Your task to perform on an android device: Go to calendar. Show me events next week Image 0: 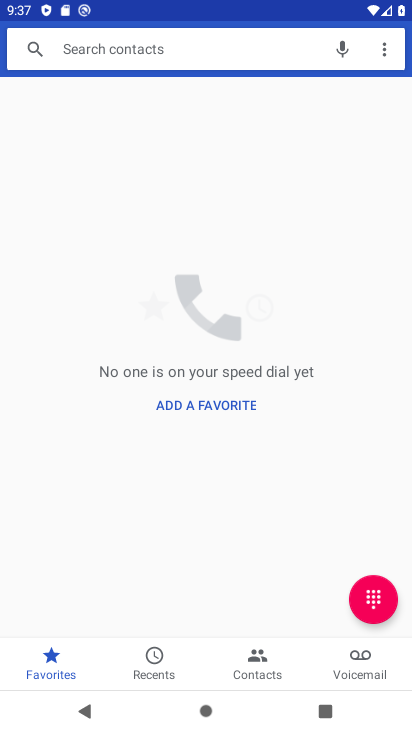
Step 0: click (138, 584)
Your task to perform on an android device: Go to calendar. Show me events next week Image 1: 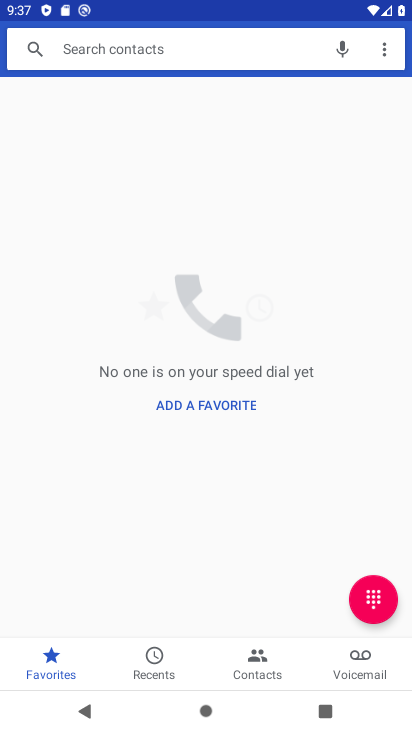
Step 1: press home button
Your task to perform on an android device: Go to calendar. Show me events next week Image 2: 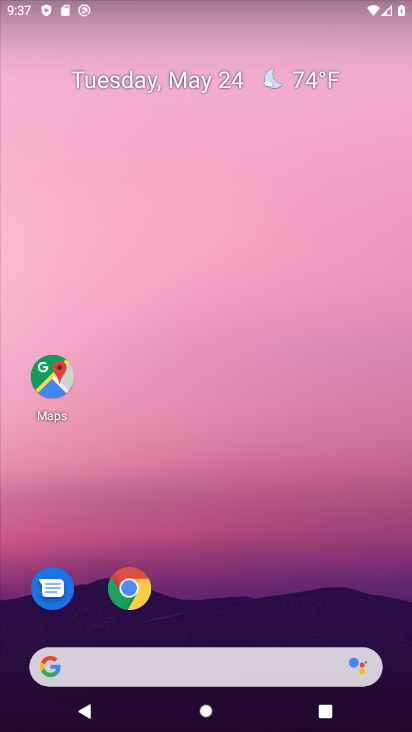
Step 2: click (146, 67)
Your task to perform on an android device: Go to calendar. Show me events next week Image 3: 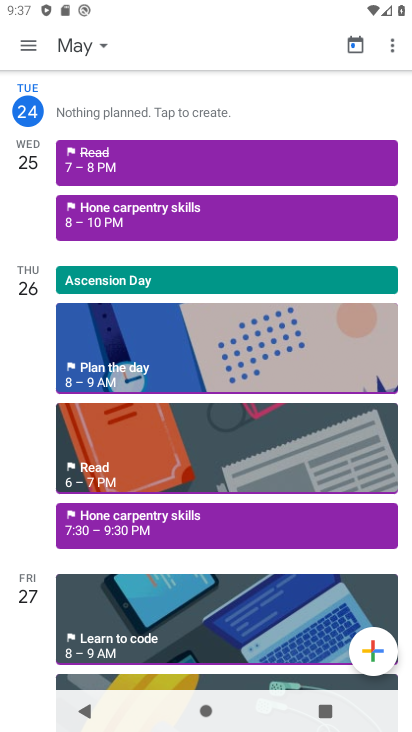
Step 3: click (75, 38)
Your task to perform on an android device: Go to calendar. Show me events next week Image 4: 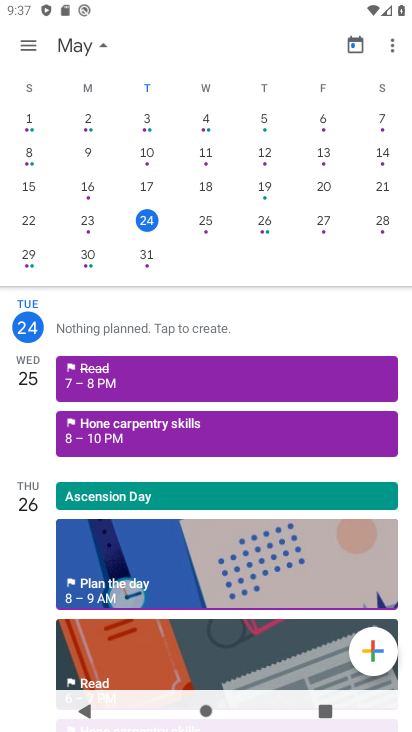
Step 4: drag from (385, 268) to (0, 205)
Your task to perform on an android device: Go to calendar. Show me events next week Image 5: 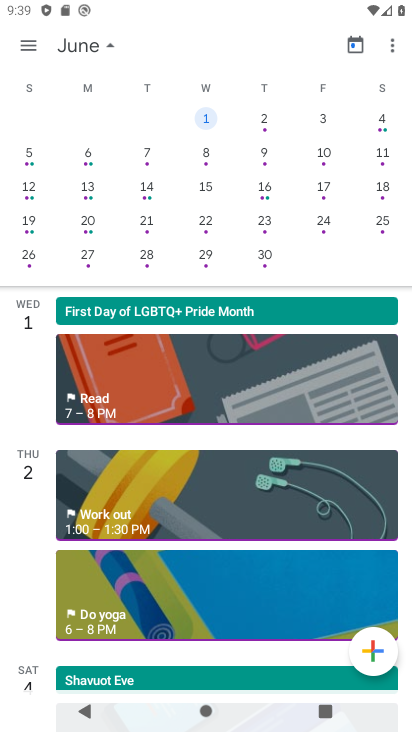
Step 5: drag from (35, 120) to (393, 212)
Your task to perform on an android device: Go to calendar. Show me events next week Image 6: 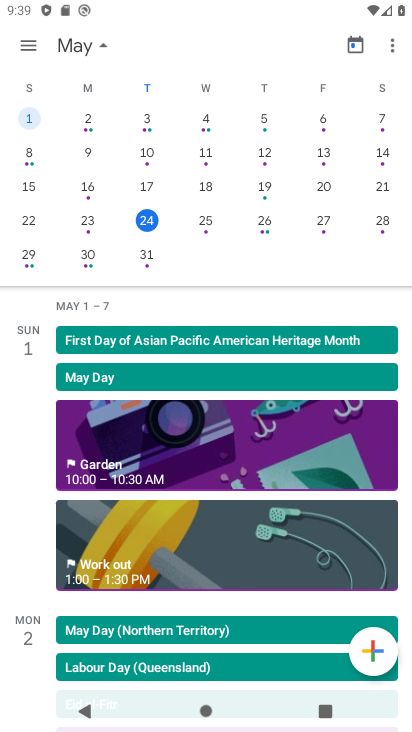
Step 6: drag from (127, 0) to (384, 84)
Your task to perform on an android device: Go to calendar. Show me events next week Image 7: 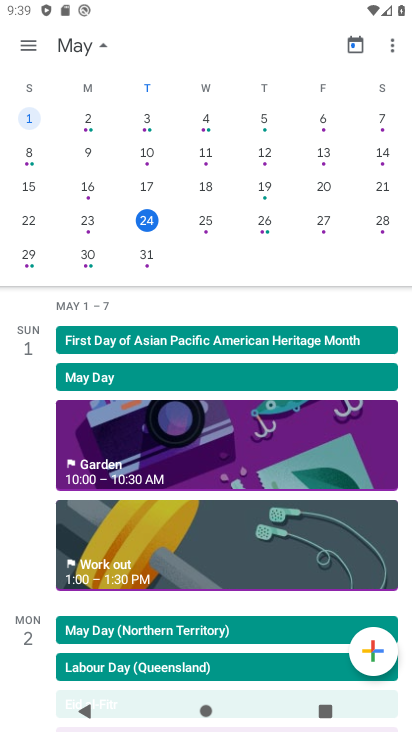
Step 7: drag from (18, 111) to (396, 211)
Your task to perform on an android device: Go to calendar. Show me events next week Image 8: 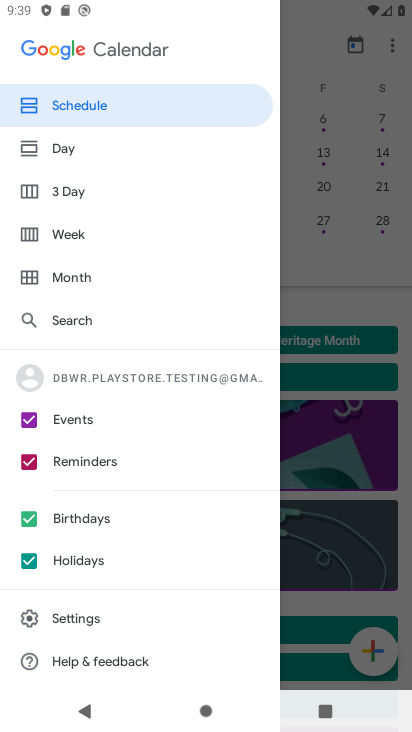
Step 8: drag from (131, 192) to (319, 226)
Your task to perform on an android device: Go to calendar. Show me events next week Image 9: 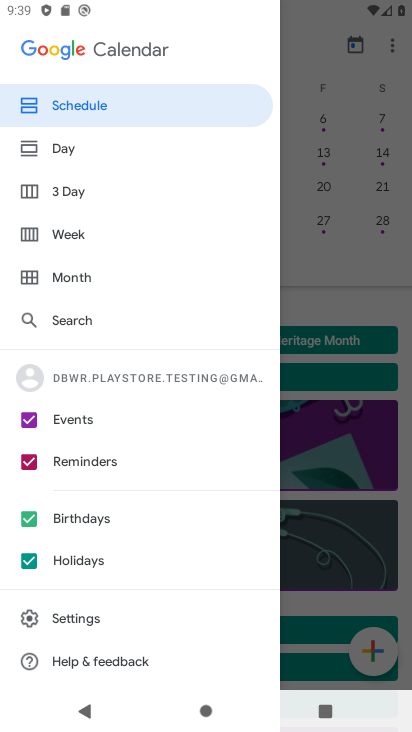
Step 9: click (321, 261)
Your task to perform on an android device: Go to calendar. Show me events next week Image 10: 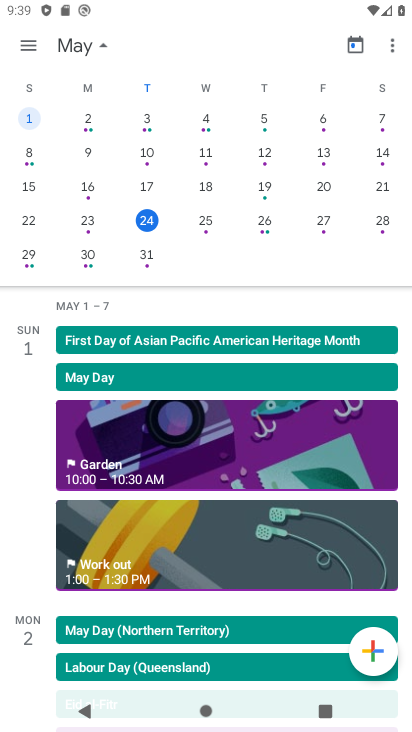
Step 10: click (154, 260)
Your task to perform on an android device: Go to calendar. Show me events next week Image 11: 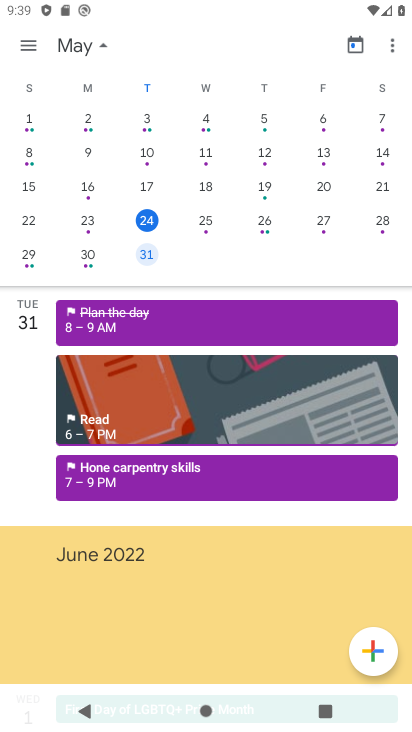
Step 11: task complete